Your task to perform on an android device: check data usage Image 0: 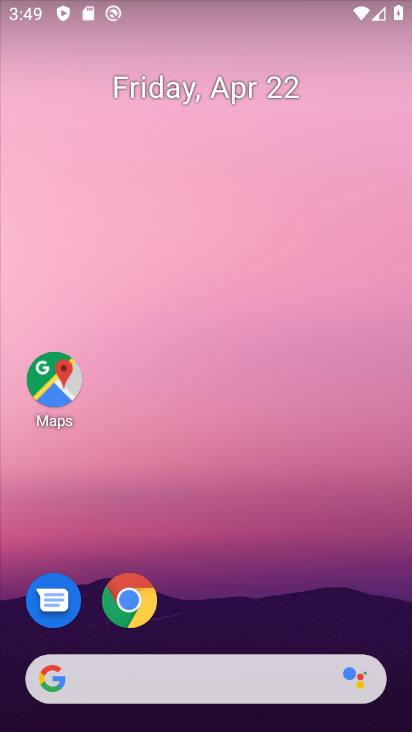
Step 0: drag from (267, 605) to (247, 213)
Your task to perform on an android device: check data usage Image 1: 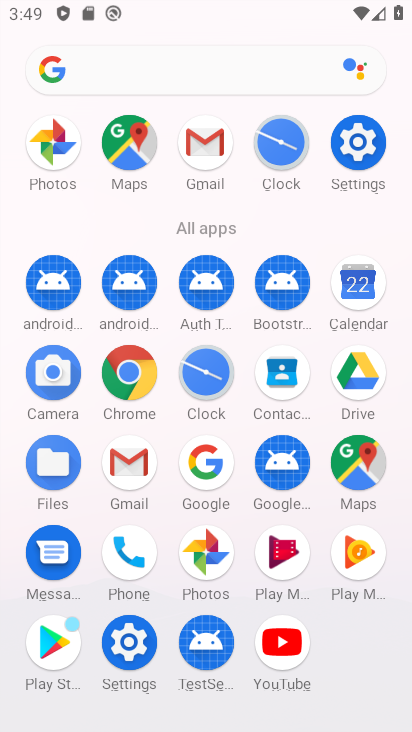
Step 1: click (374, 137)
Your task to perform on an android device: check data usage Image 2: 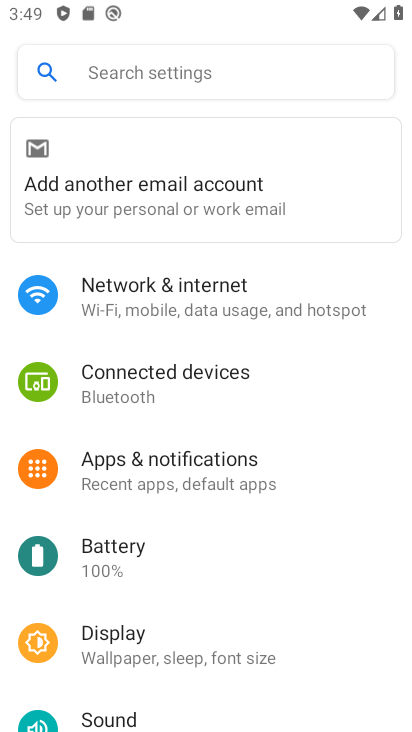
Step 2: click (210, 316)
Your task to perform on an android device: check data usage Image 3: 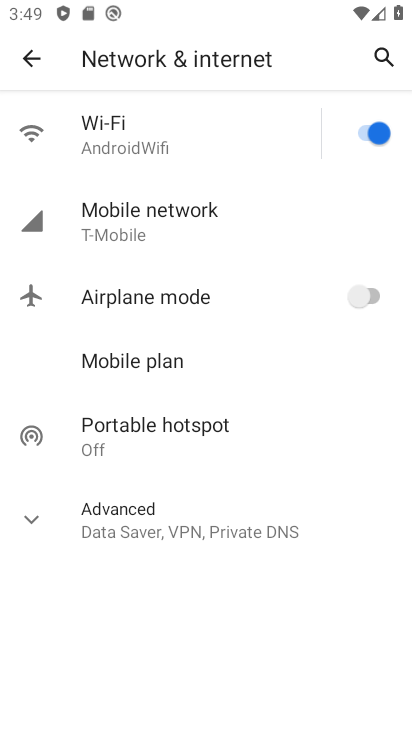
Step 3: click (188, 154)
Your task to perform on an android device: check data usage Image 4: 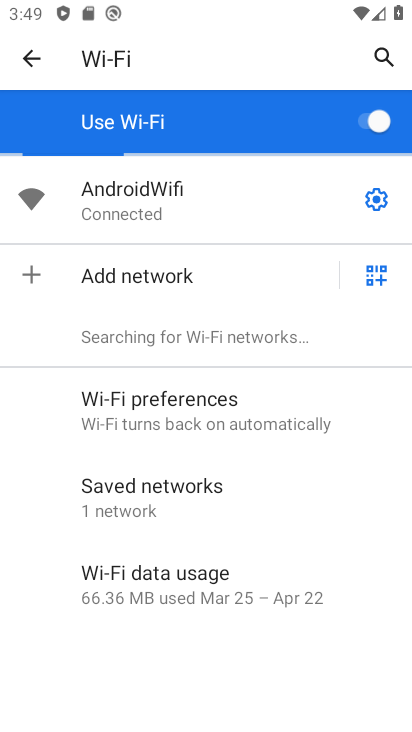
Step 4: click (191, 564)
Your task to perform on an android device: check data usage Image 5: 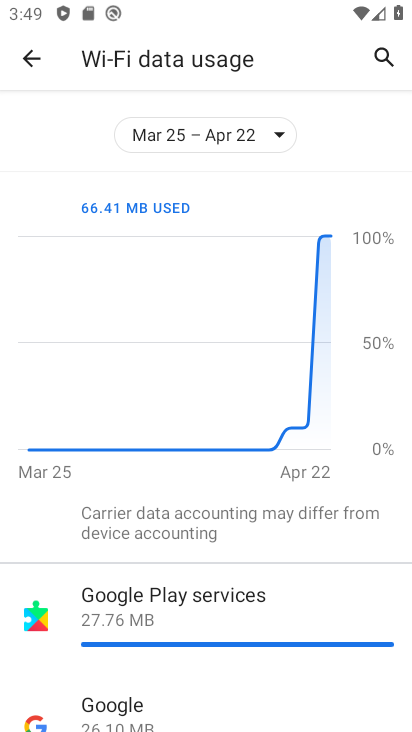
Step 5: task complete